Your task to perform on an android device: open sync settings in chrome Image 0: 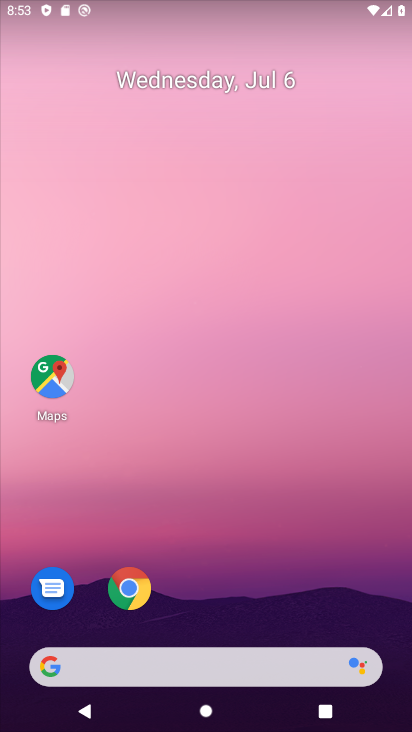
Step 0: drag from (161, 674) to (326, 68)
Your task to perform on an android device: open sync settings in chrome Image 1: 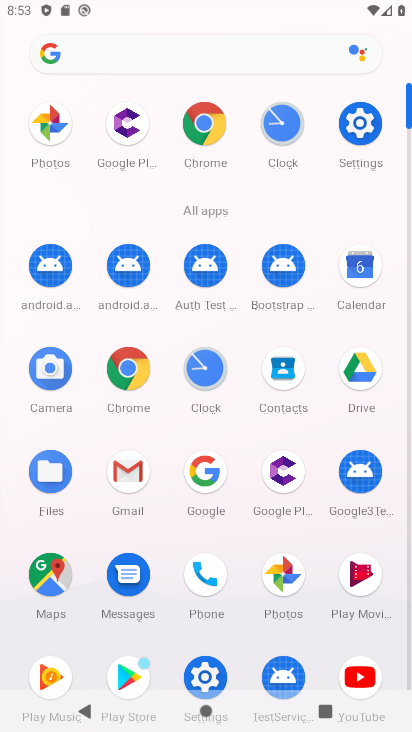
Step 1: click (206, 125)
Your task to perform on an android device: open sync settings in chrome Image 2: 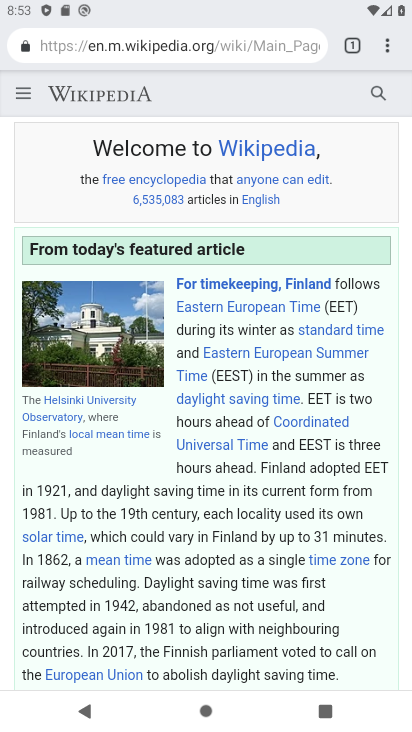
Step 2: click (389, 43)
Your task to perform on an android device: open sync settings in chrome Image 3: 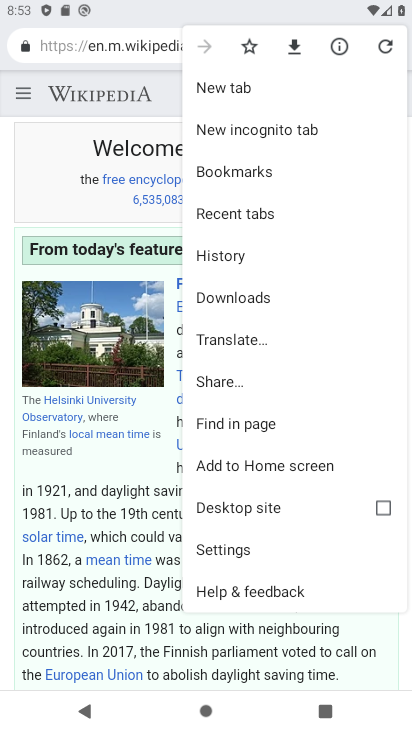
Step 3: click (234, 550)
Your task to perform on an android device: open sync settings in chrome Image 4: 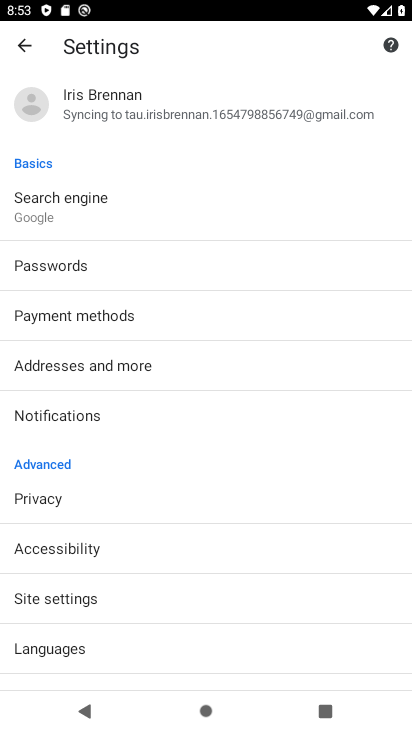
Step 4: click (115, 104)
Your task to perform on an android device: open sync settings in chrome Image 5: 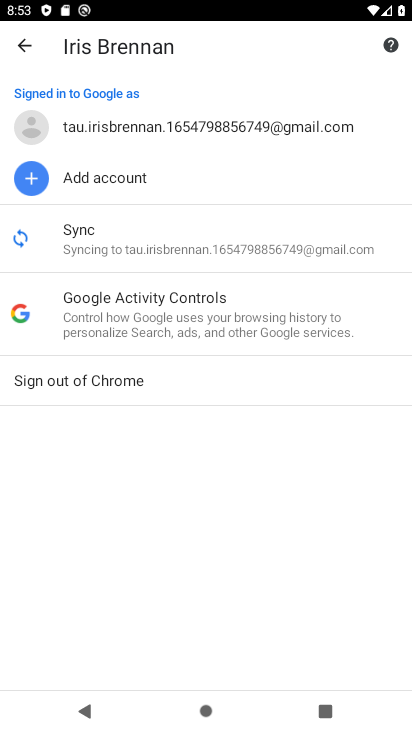
Step 5: click (162, 226)
Your task to perform on an android device: open sync settings in chrome Image 6: 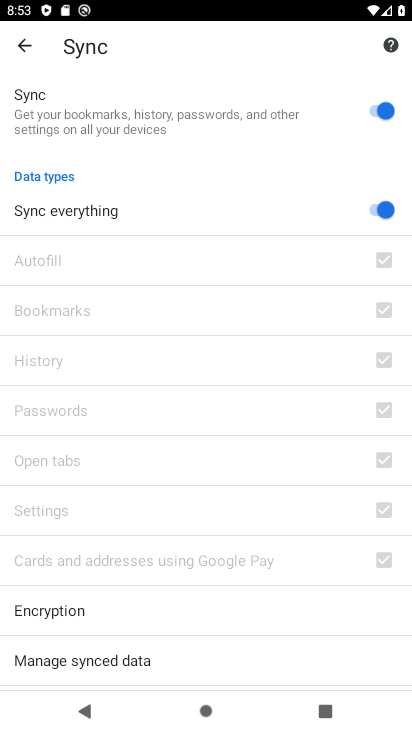
Step 6: task complete